Your task to perform on an android device: Go to accessibility settings Image 0: 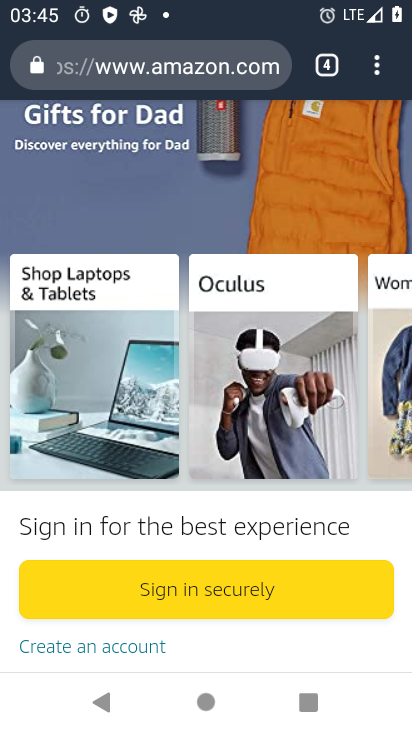
Step 0: press home button
Your task to perform on an android device: Go to accessibility settings Image 1: 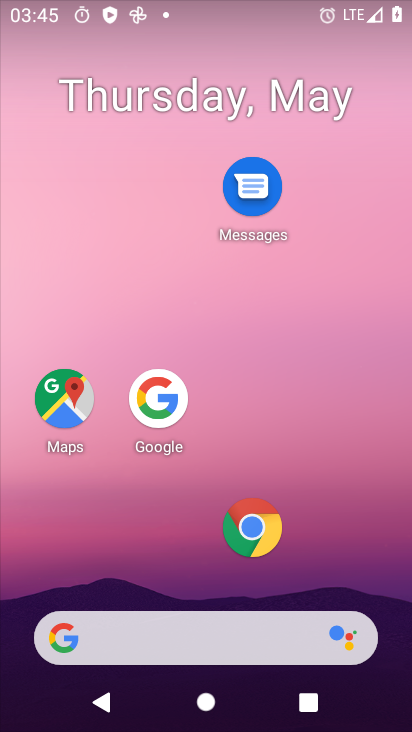
Step 1: drag from (180, 584) to (222, 294)
Your task to perform on an android device: Go to accessibility settings Image 2: 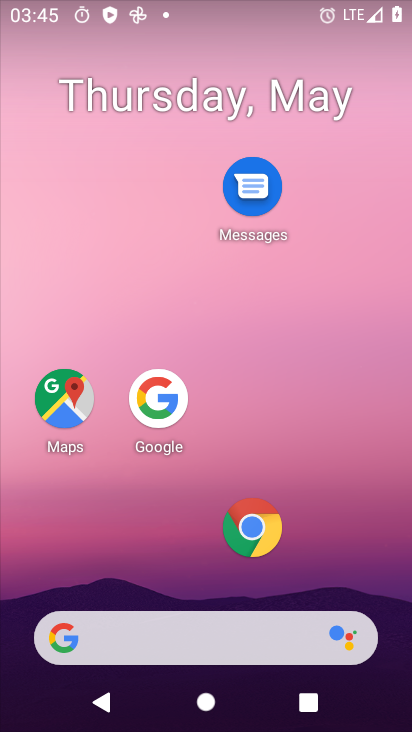
Step 2: drag from (221, 583) to (208, 155)
Your task to perform on an android device: Go to accessibility settings Image 3: 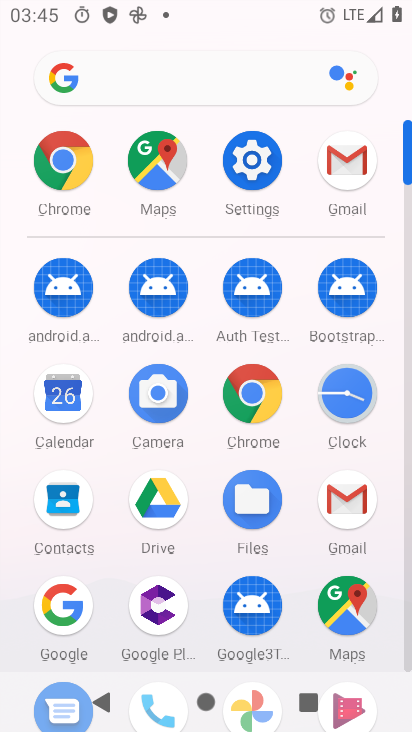
Step 3: click (257, 151)
Your task to perform on an android device: Go to accessibility settings Image 4: 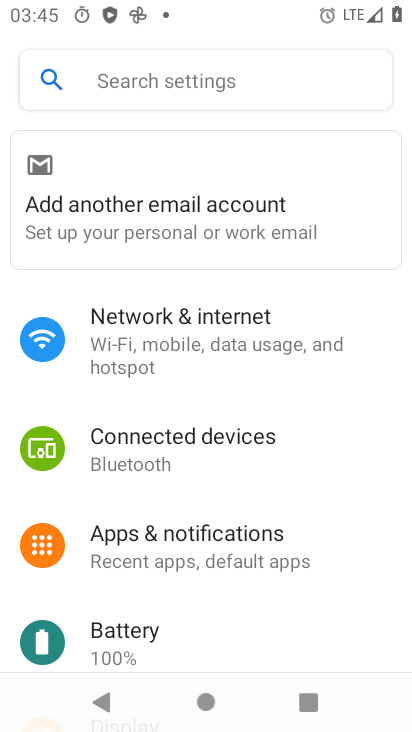
Step 4: drag from (216, 577) to (279, 156)
Your task to perform on an android device: Go to accessibility settings Image 5: 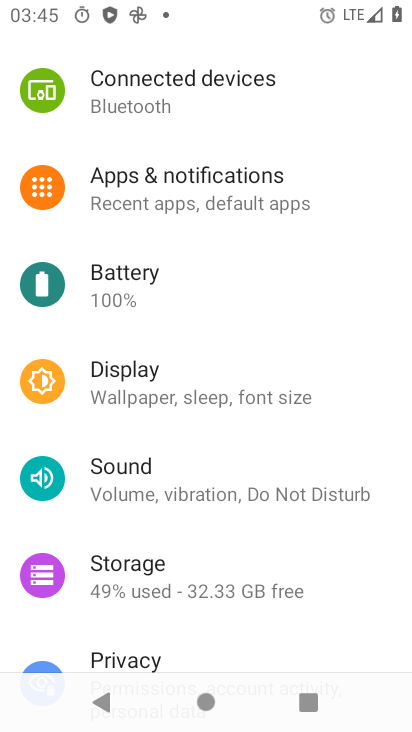
Step 5: drag from (254, 578) to (359, 61)
Your task to perform on an android device: Go to accessibility settings Image 6: 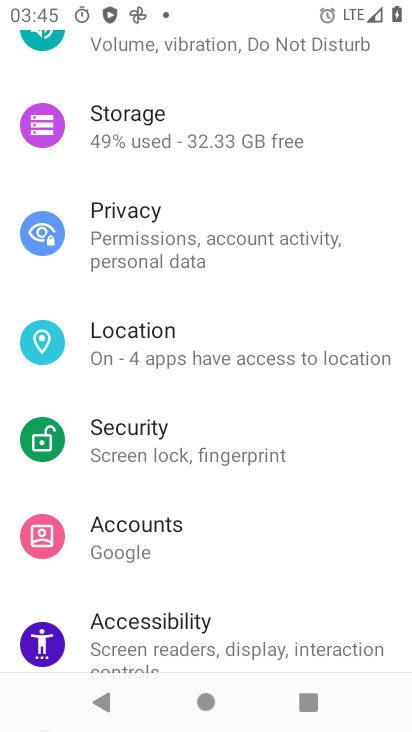
Step 6: click (177, 619)
Your task to perform on an android device: Go to accessibility settings Image 7: 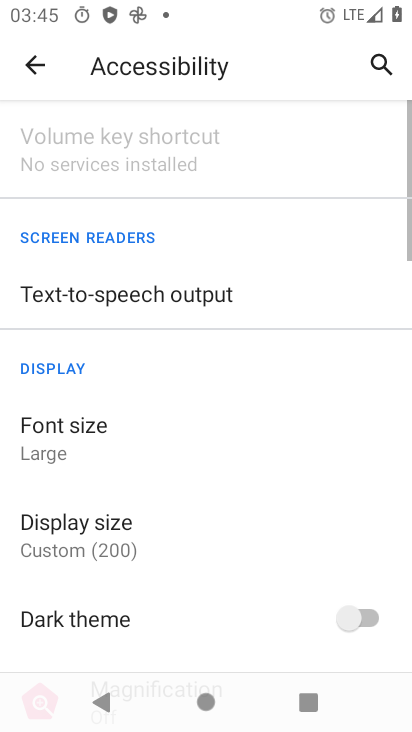
Step 7: task complete